Your task to perform on an android device: open device folders in google photos Image 0: 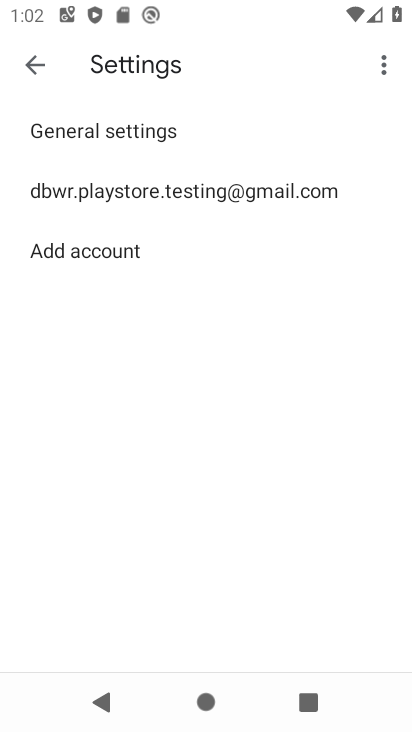
Step 0: click (411, 485)
Your task to perform on an android device: open device folders in google photos Image 1: 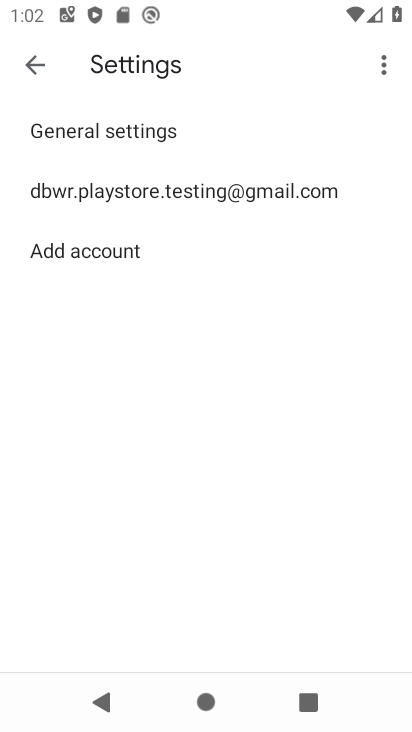
Step 1: press home button
Your task to perform on an android device: open device folders in google photos Image 2: 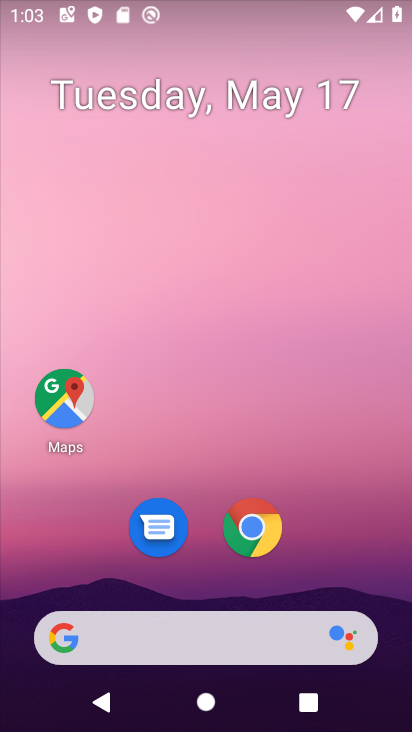
Step 2: drag from (73, 601) to (178, 172)
Your task to perform on an android device: open device folders in google photos Image 3: 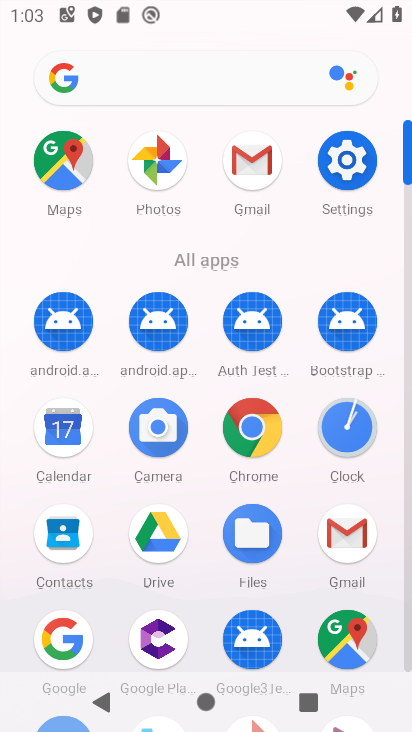
Step 3: drag from (170, 622) to (195, 463)
Your task to perform on an android device: open device folders in google photos Image 4: 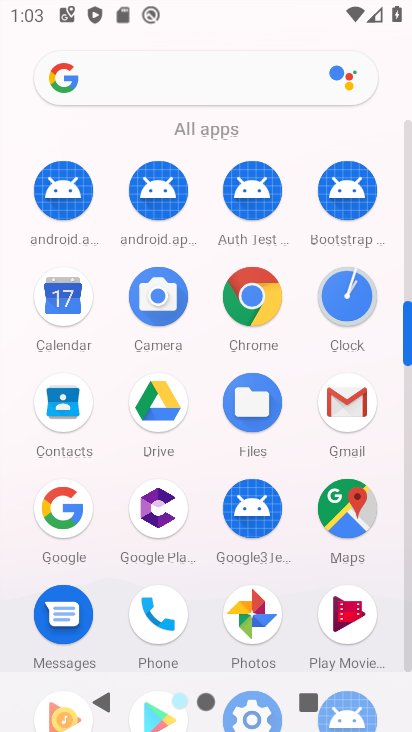
Step 4: click (242, 628)
Your task to perform on an android device: open device folders in google photos Image 5: 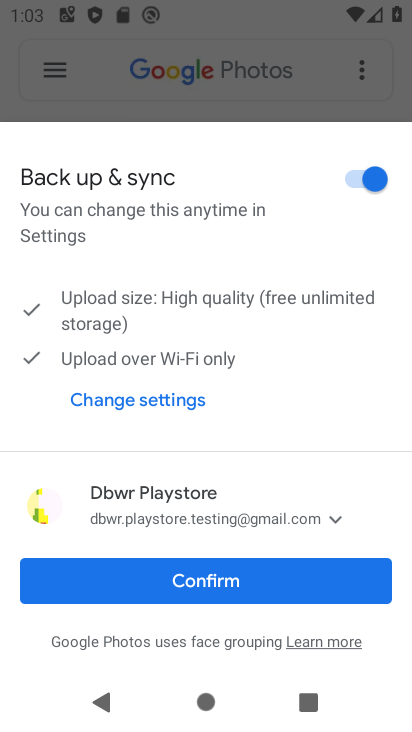
Step 5: click (192, 590)
Your task to perform on an android device: open device folders in google photos Image 6: 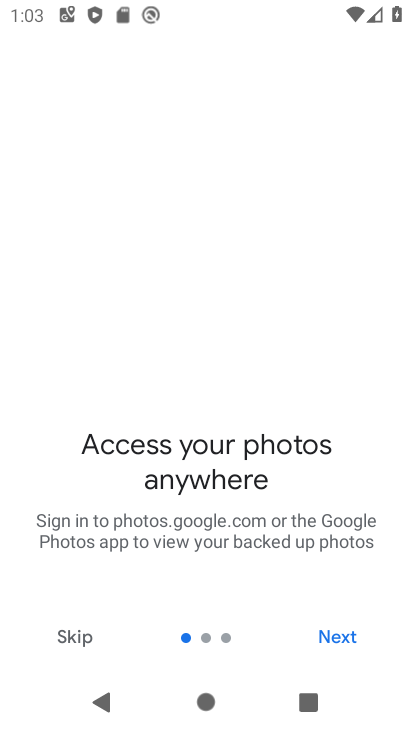
Step 6: click (335, 627)
Your task to perform on an android device: open device folders in google photos Image 7: 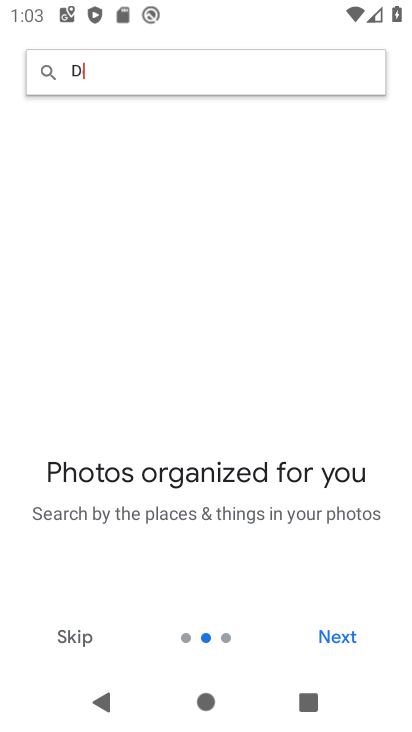
Step 7: click (335, 631)
Your task to perform on an android device: open device folders in google photos Image 8: 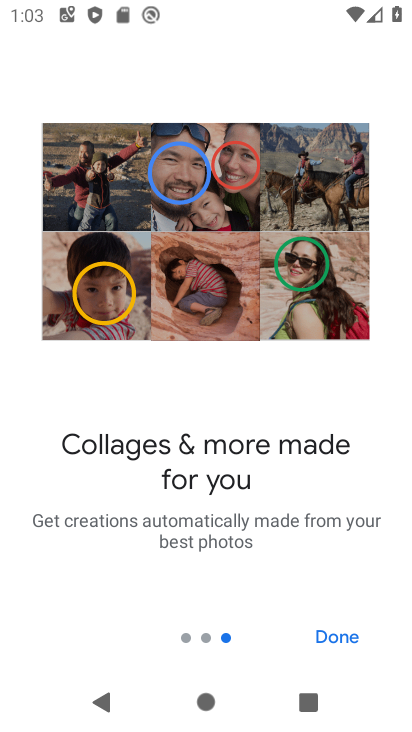
Step 8: click (338, 640)
Your task to perform on an android device: open device folders in google photos Image 9: 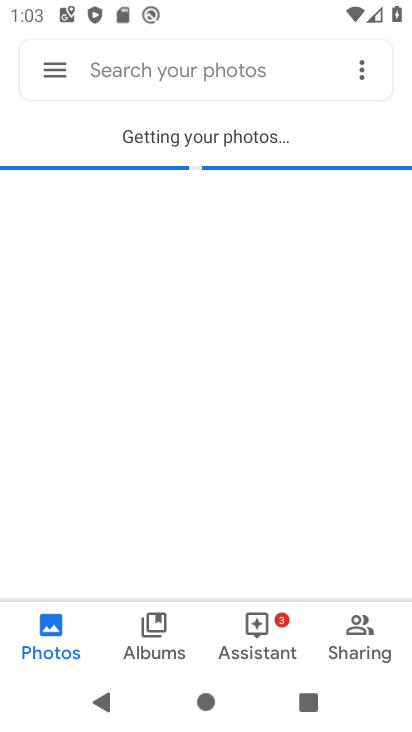
Step 9: click (81, 71)
Your task to perform on an android device: open device folders in google photos Image 10: 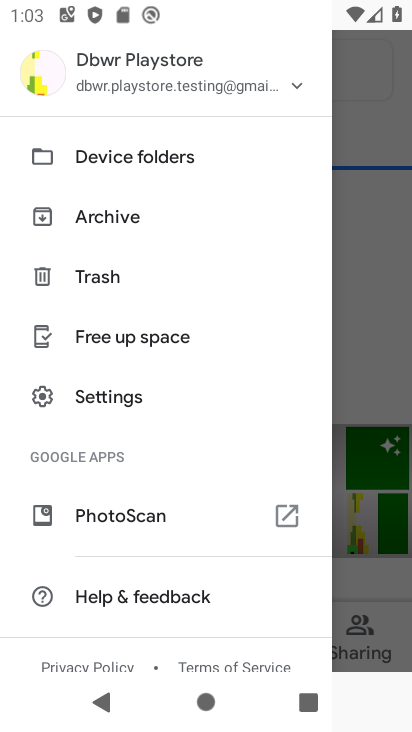
Step 10: click (165, 172)
Your task to perform on an android device: open device folders in google photos Image 11: 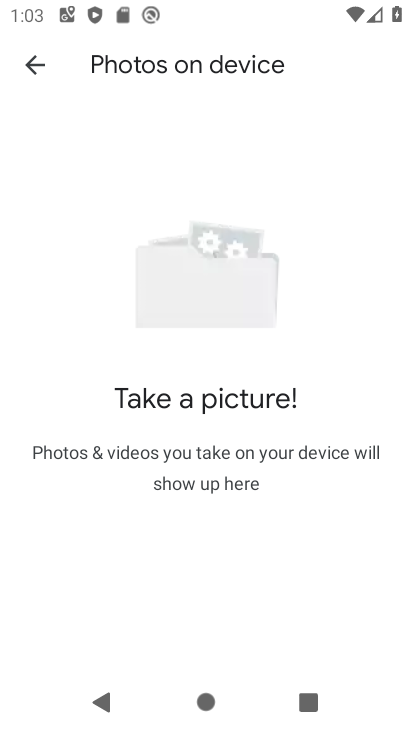
Step 11: task complete